Your task to perform on an android device: toggle notifications settings in the gmail app Image 0: 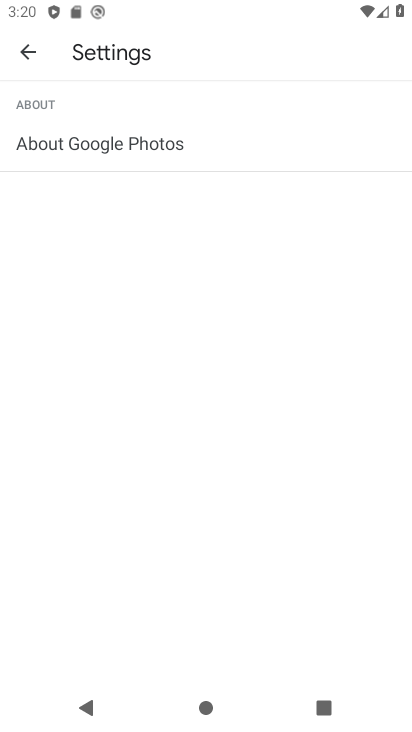
Step 0: press home button
Your task to perform on an android device: toggle notifications settings in the gmail app Image 1: 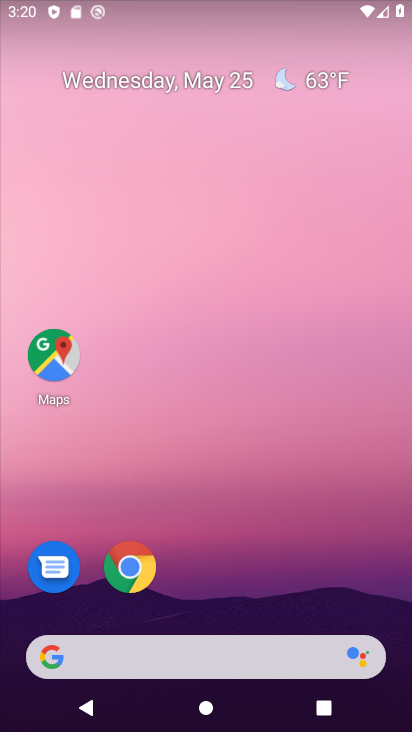
Step 1: drag from (263, 582) to (246, 25)
Your task to perform on an android device: toggle notifications settings in the gmail app Image 2: 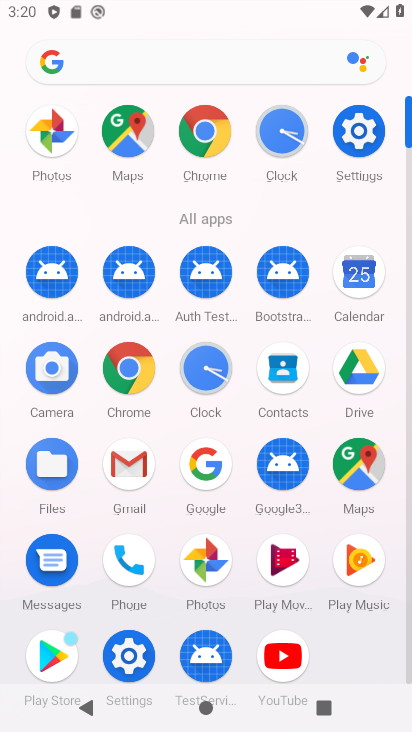
Step 2: click (132, 463)
Your task to perform on an android device: toggle notifications settings in the gmail app Image 3: 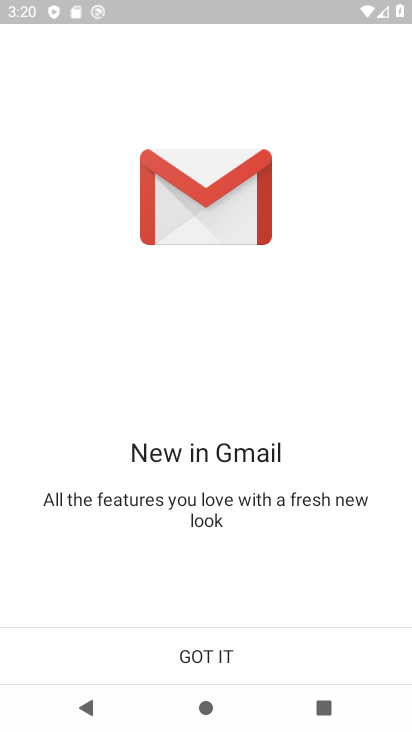
Step 3: press back button
Your task to perform on an android device: toggle notifications settings in the gmail app Image 4: 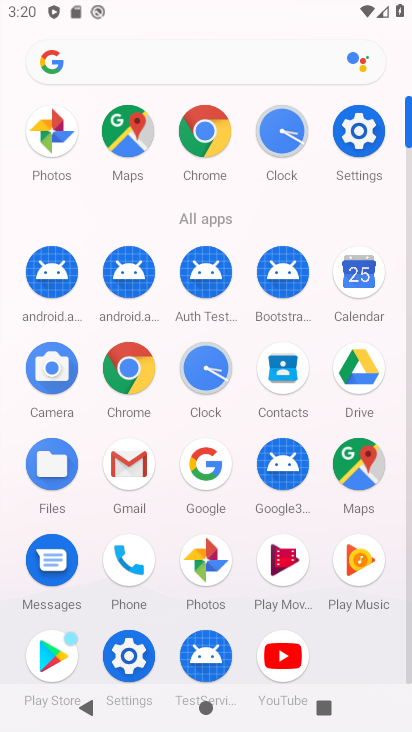
Step 4: click (137, 466)
Your task to perform on an android device: toggle notifications settings in the gmail app Image 5: 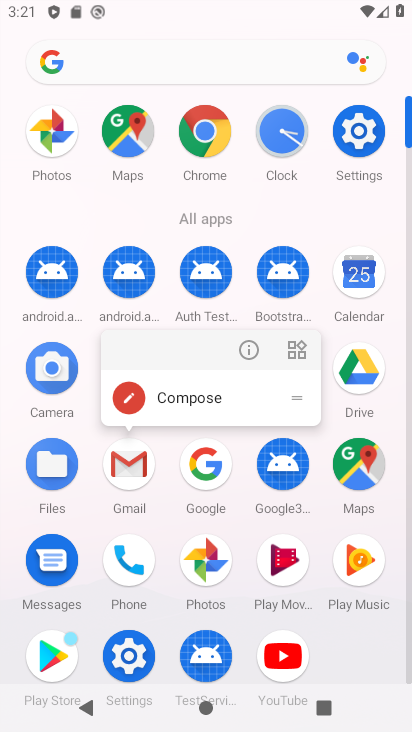
Step 5: click (247, 348)
Your task to perform on an android device: toggle notifications settings in the gmail app Image 6: 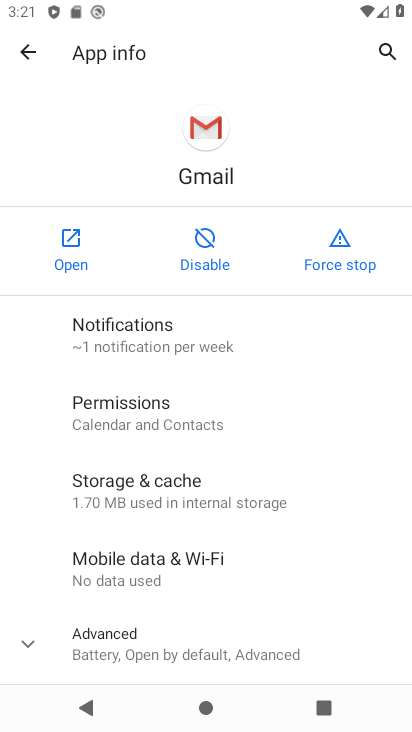
Step 6: click (182, 342)
Your task to perform on an android device: toggle notifications settings in the gmail app Image 7: 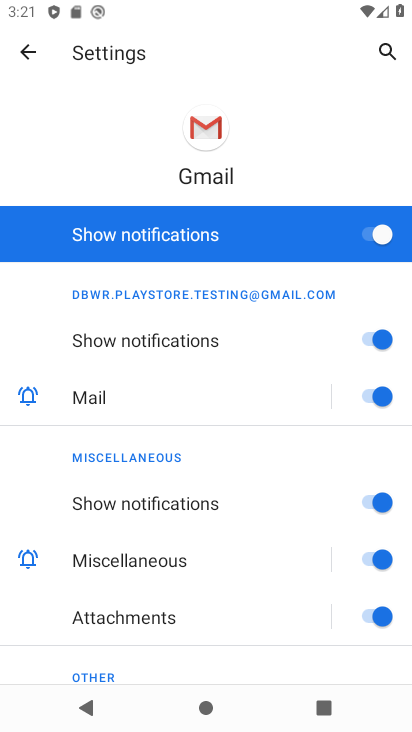
Step 7: click (377, 235)
Your task to perform on an android device: toggle notifications settings in the gmail app Image 8: 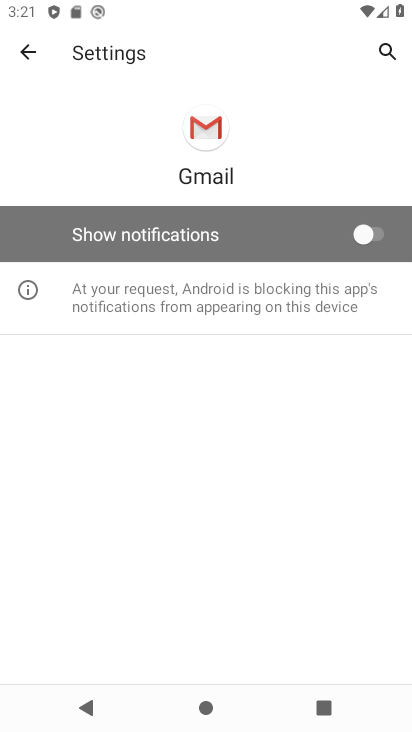
Step 8: task complete